Your task to perform on an android device: Open eBay Image 0: 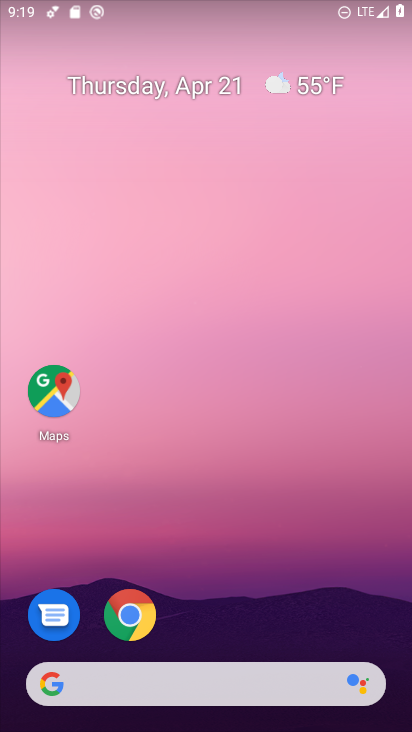
Step 0: drag from (329, 544) to (314, 47)
Your task to perform on an android device: Open eBay Image 1: 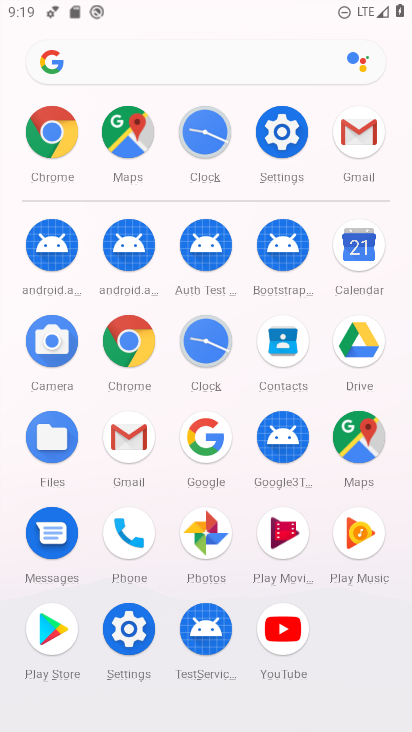
Step 1: click (63, 148)
Your task to perform on an android device: Open eBay Image 2: 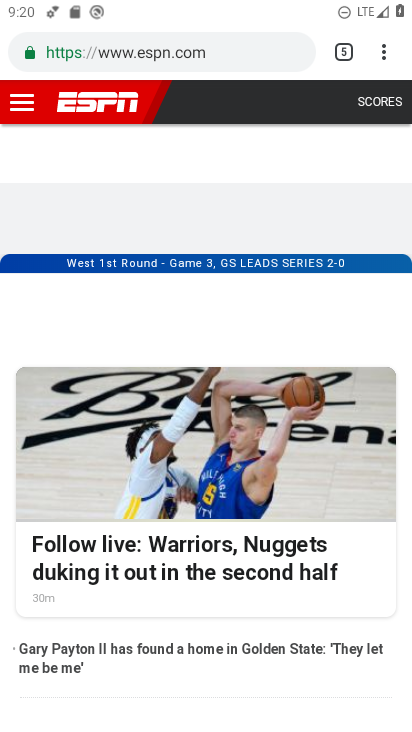
Step 2: drag from (327, 598) to (384, 285)
Your task to perform on an android device: Open eBay Image 3: 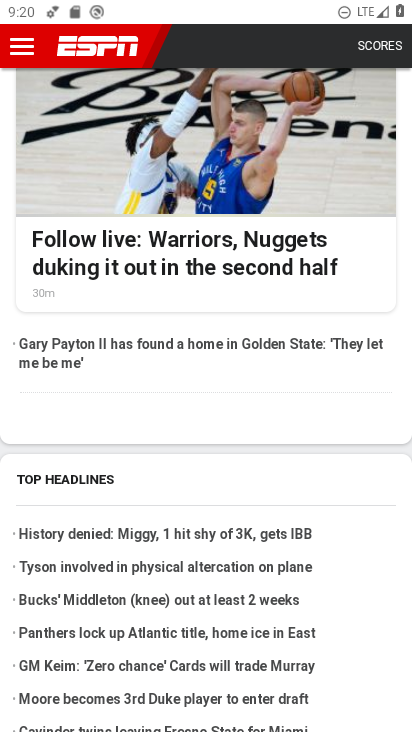
Step 3: drag from (347, 342) to (328, 535)
Your task to perform on an android device: Open eBay Image 4: 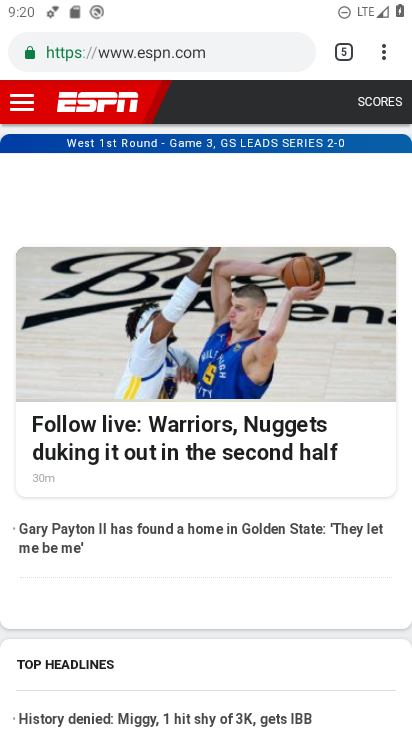
Step 4: drag from (384, 55) to (231, 106)
Your task to perform on an android device: Open eBay Image 5: 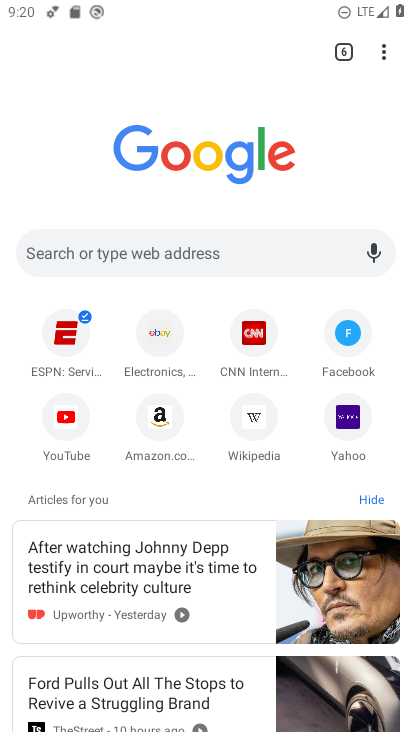
Step 5: click (167, 355)
Your task to perform on an android device: Open eBay Image 6: 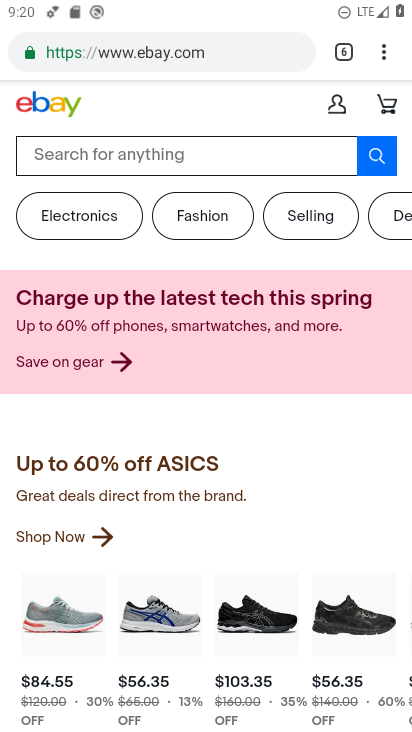
Step 6: task complete